Your task to perform on an android device: Open network settings Image 0: 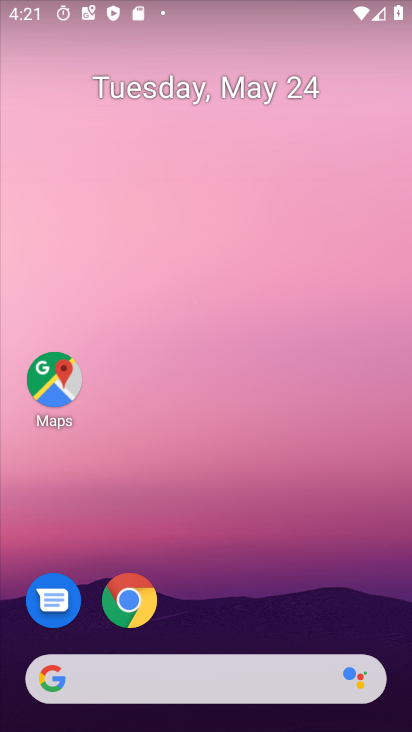
Step 0: drag from (253, 642) to (267, 1)
Your task to perform on an android device: Open network settings Image 1: 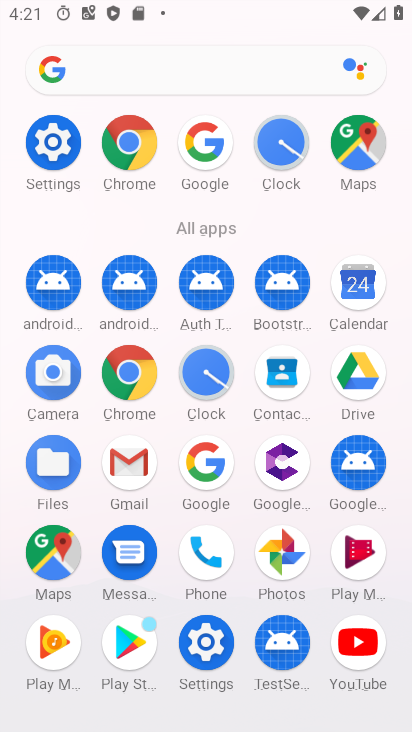
Step 1: click (54, 146)
Your task to perform on an android device: Open network settings Image 2: 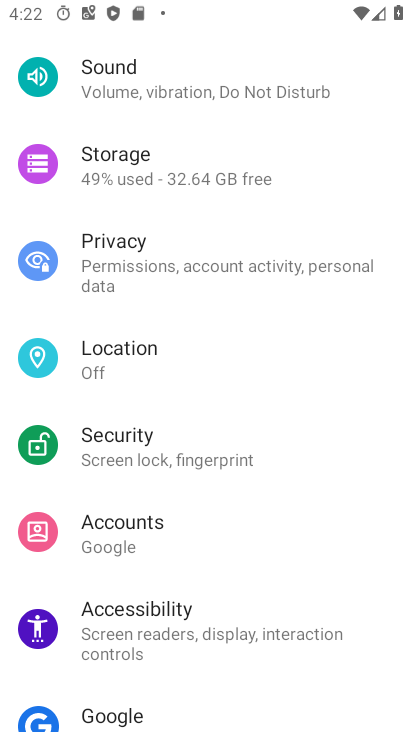
Step 2: drag from (294, 188) to (285, 508)
Your task to perform on an android device: Open network settings Image 3: 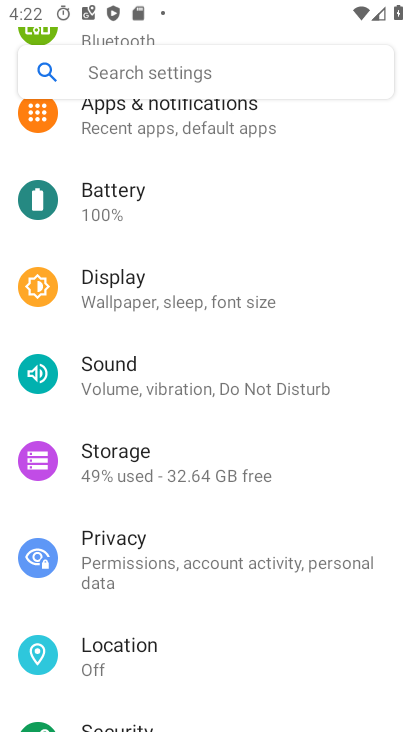
Step 3: drag from (221, 255) to (218, 594)
Your task to perform on an android device: Open network settings Image 4: 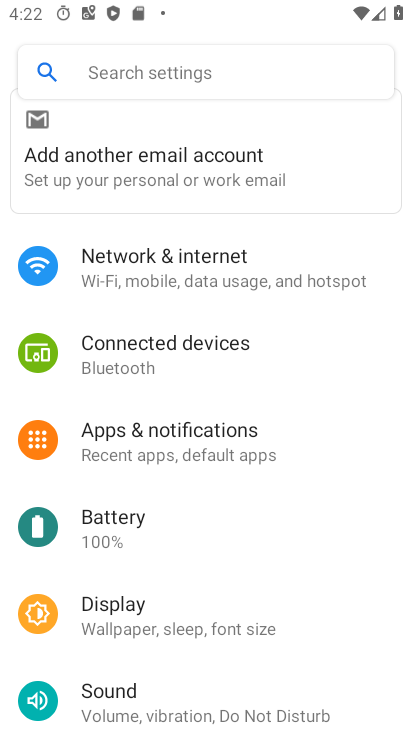
Step 4: click (113, 280)
Your task to perform on an android device: Open network settings Image 5: 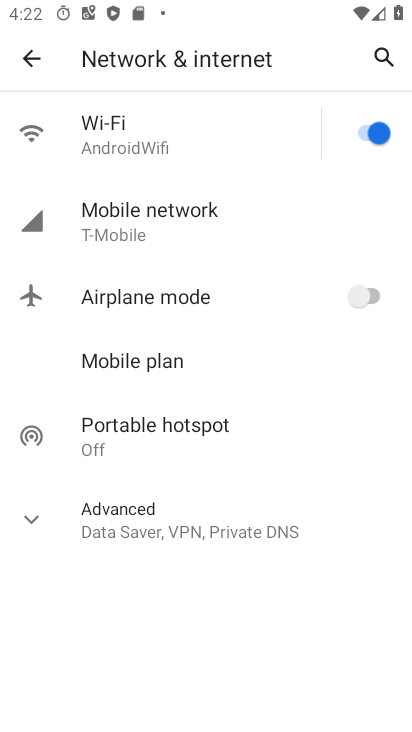
Step 5: click (120, 231)
Your task to perform on an android device: Open network settings Image 6: 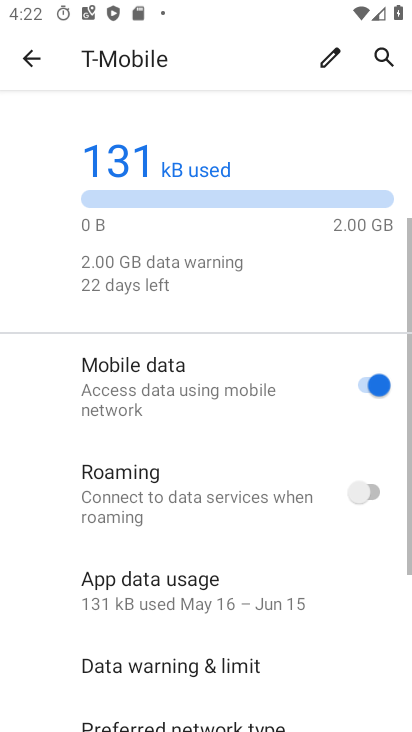
Step 6: drag from (204, 589) to (168, 32)
Your task to perform on an android device: Open network settings Image 7: 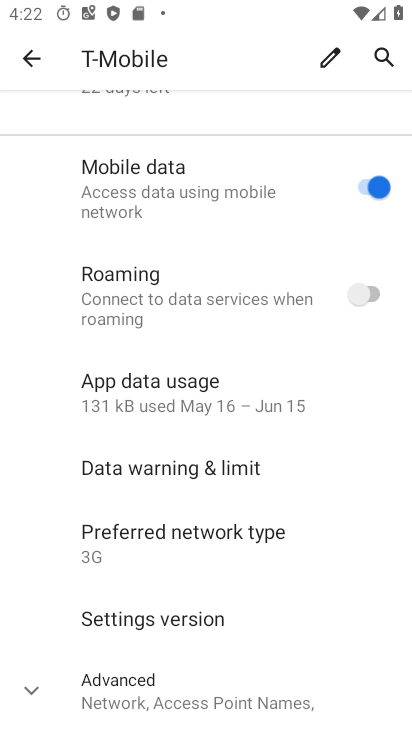
Step 7: click (29, 698)
Your task to perform on an android device: Open network settings Image 8: 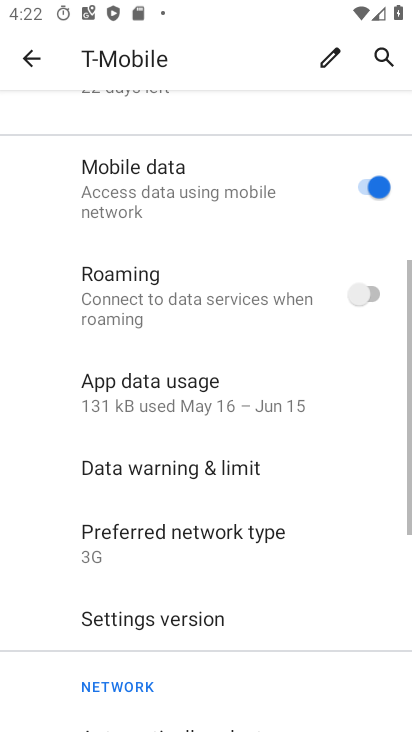
Step 8: task complete